Your task to perform on an android device: Show me the alarms in the clock app Image 0: 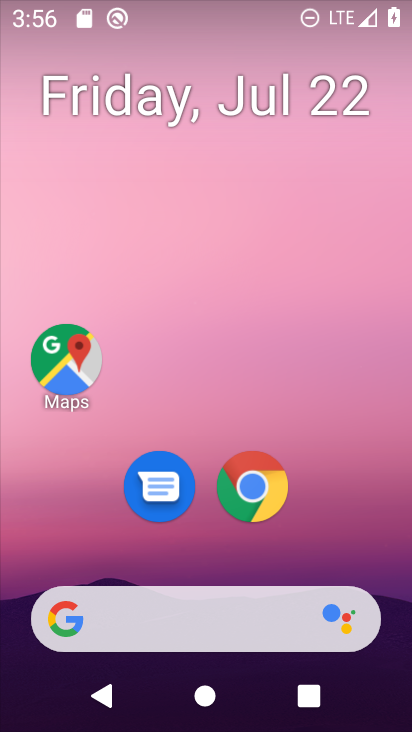
Step 0: drag from (187, 351) to (253, 41)
Your task to perform on an android device: Show me the alarms in the clock app Image 1: 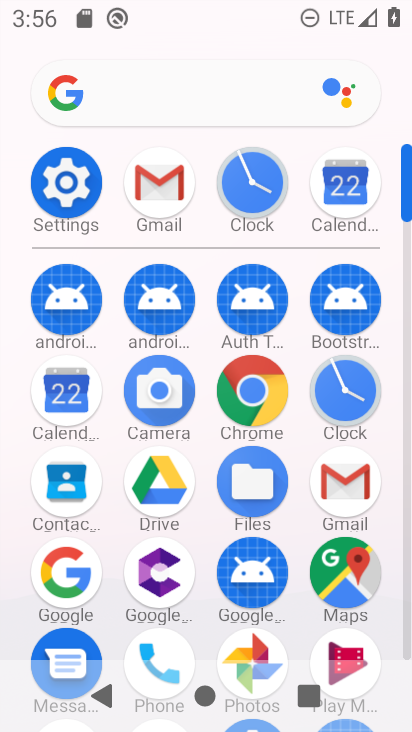
Step 1: click (249, 179)
Your task to perform on an android device: Show me the alarms in the clock app Image 2: 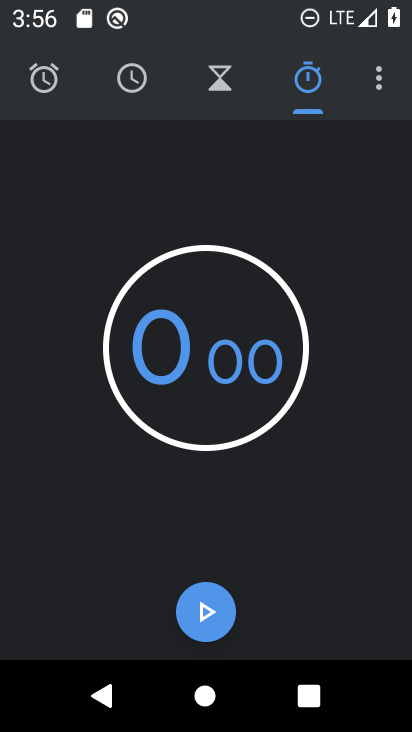
Step 2: click (47, 74)
Your task to perform on an android device: Show me the alarms in the clock app Image 3: 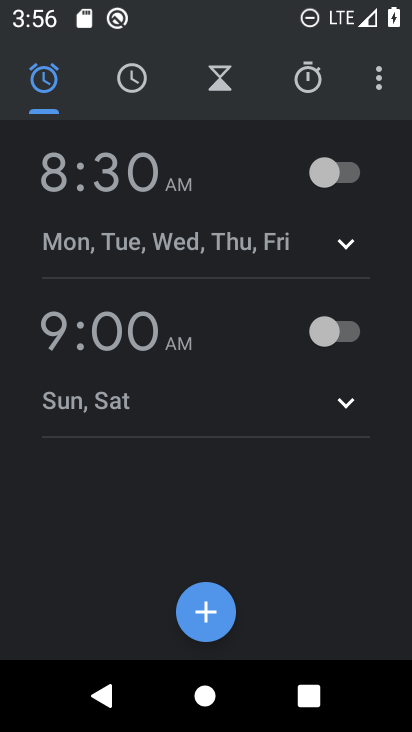
Step 3: task complete